Your task to perform on an android device: toggle data saver in the chrome app Image 0: 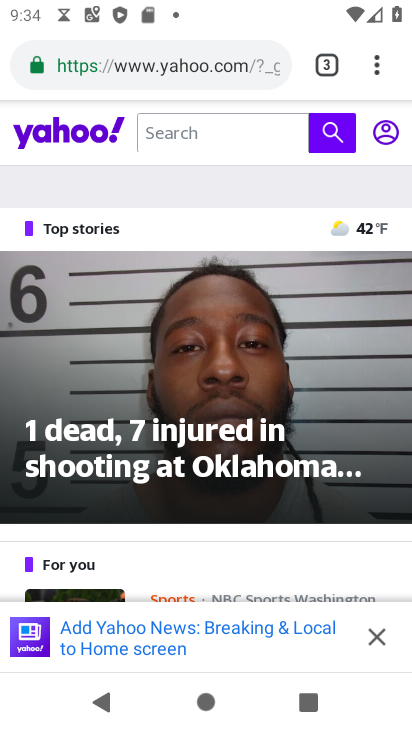
Step 0: press home button
Your task to perform on an android device: toggle data saver in the chrome app Image 1: 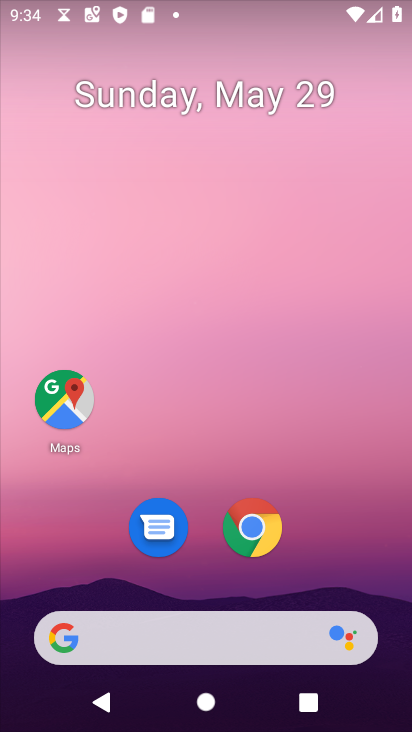
Step 1: click (255, 528)
Your task to perform on an android device: toggle data saver in the chrome app Image 2: 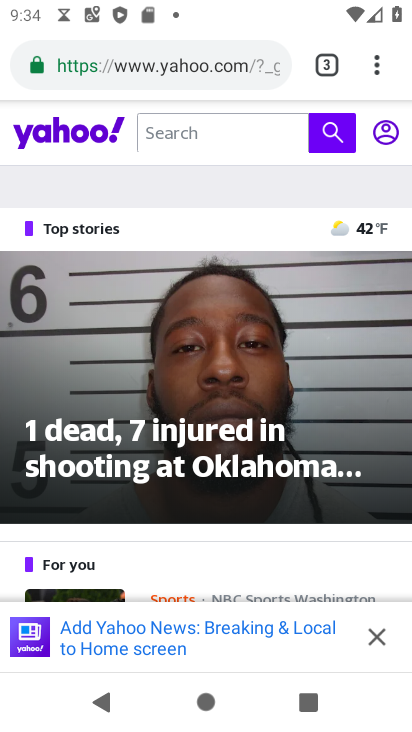
Step 2: drag from (374, 63) to (238, 587)
Your task to perform on an android device: toggle data saver in the chrome app Image 3: 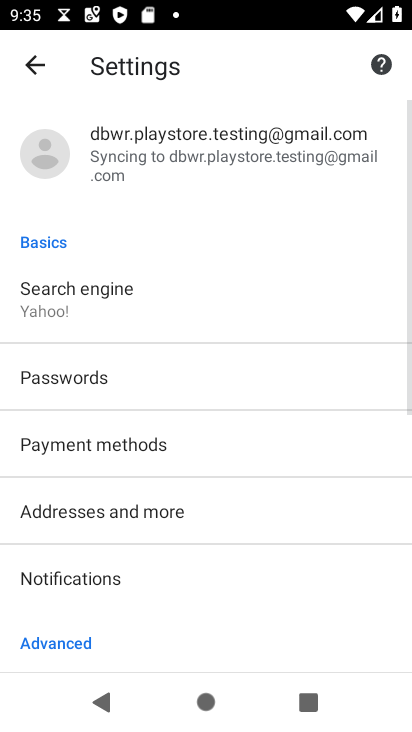
Step 3: drag from (226, 596) to (328, 273)
Your task to perform on an android device: toggle data saver in the chrome app Image 4: 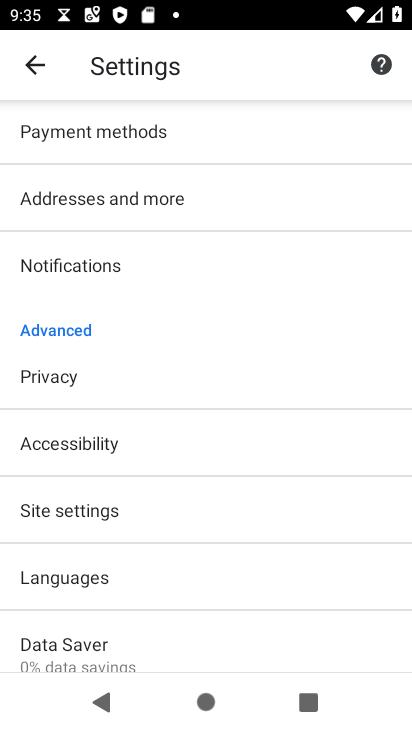
Step 4: click (59, 641)
Your task to perform on an android device: toggle data saver in the chrome app Image 5: 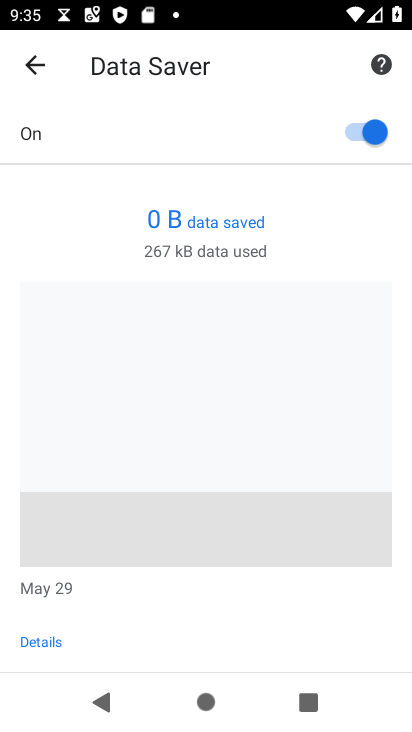
Step 5: click (354, 134)
Your task to perform on an android device: toggle data saver in the chrome app Image 6: 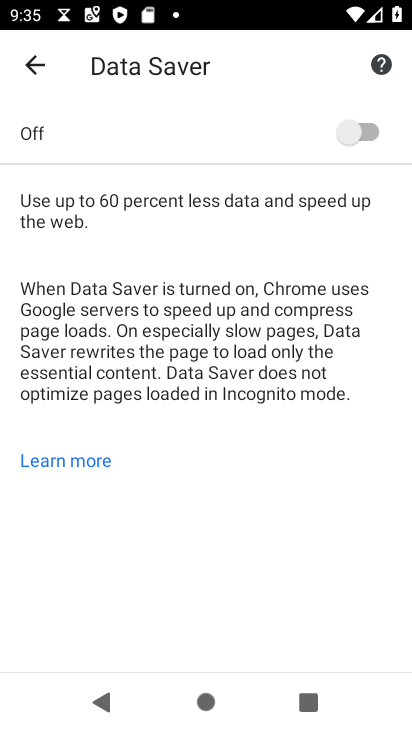
Step 6: task complete